Your task to perform on an android device: check the backup settings in the google photos Image 0: 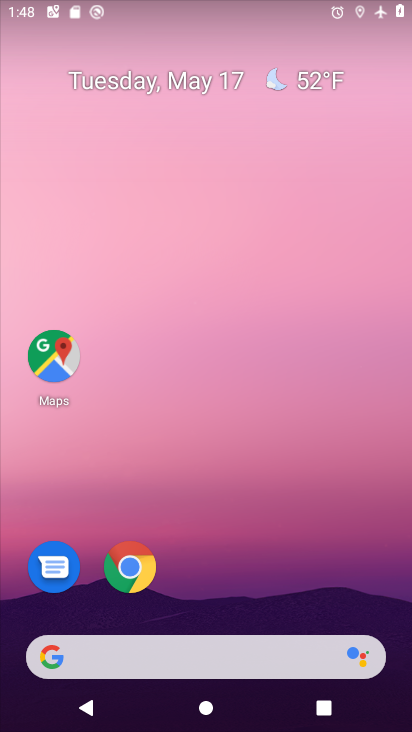
Step 0: drag from (221, 582) to (238, 27)
Your task to perform on an android device: check the backup settings in the google photos Image 1: 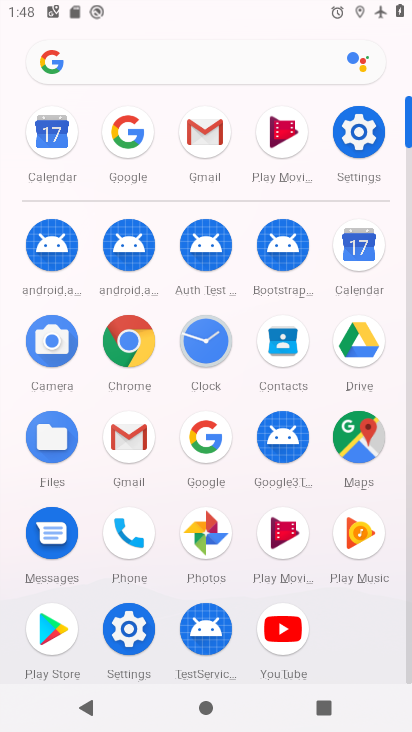
Step 1: click (200, 540)
Your task to perform on an android device: check the backup settings in the google photos Image 2: 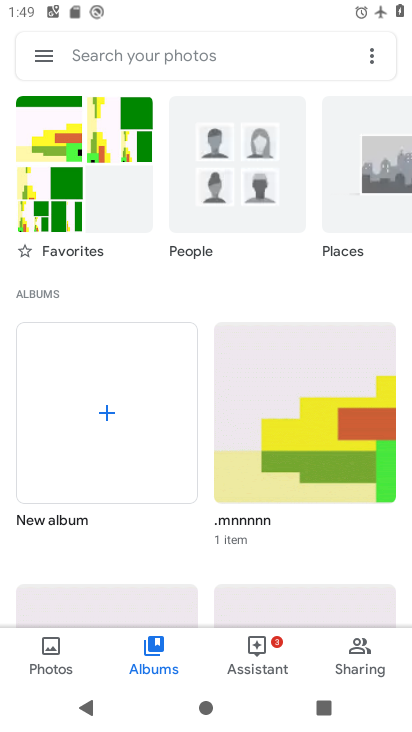
Step 2: click (54, 50)
Your task to perform on an android device: check the backup settings in the google photos Image 3: 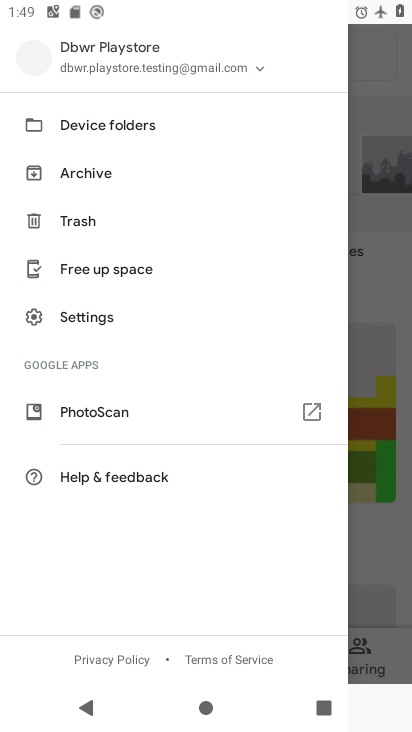
Step 3: click (103, 319)
Your task to perform on an android device: check the backup settings in the google photos Image 4: 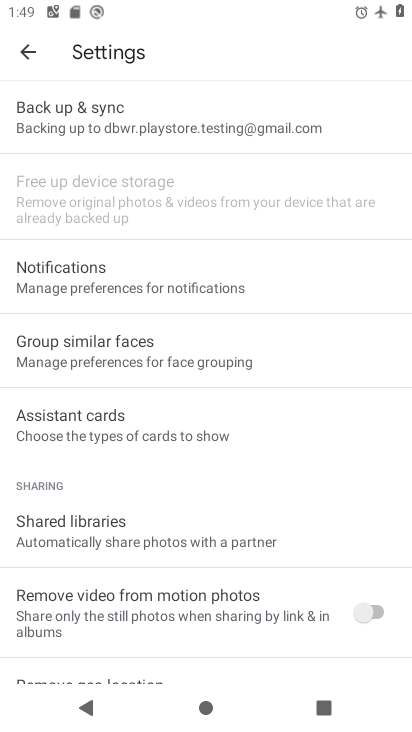
Step 4: click (93, 103)
Your task to perform on an android device: check the backup settings in the google photos Image 5: 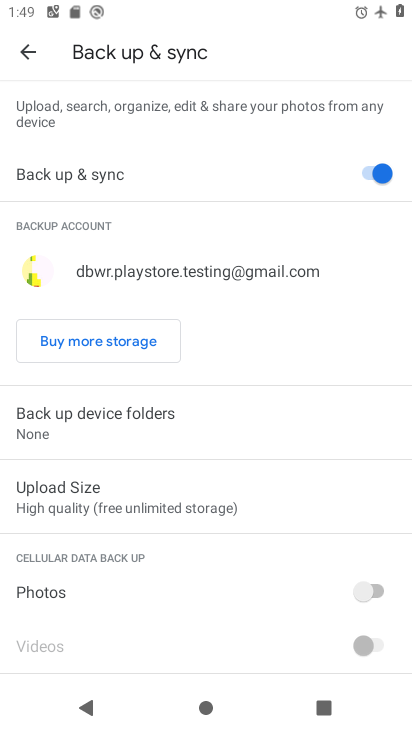
Step 5: task complete